Your task to perform on an android device: Go to accessibility settings Image 0: 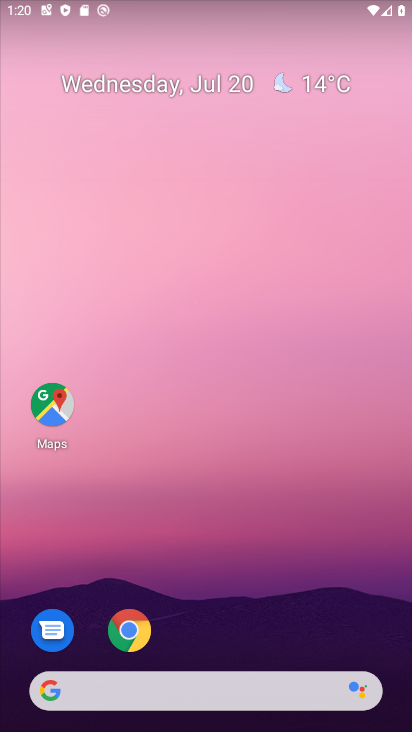
Step 0: press home button
Your task to perform on an android device: Go to accessibility settings Image 1: 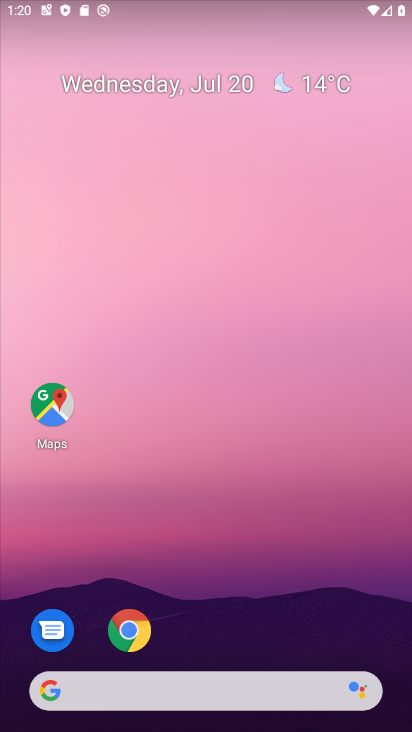
Step 1: drag from (224, 612) to (195, 189)
Your task to perform on an android device: Go to accessibility settings Image 2: 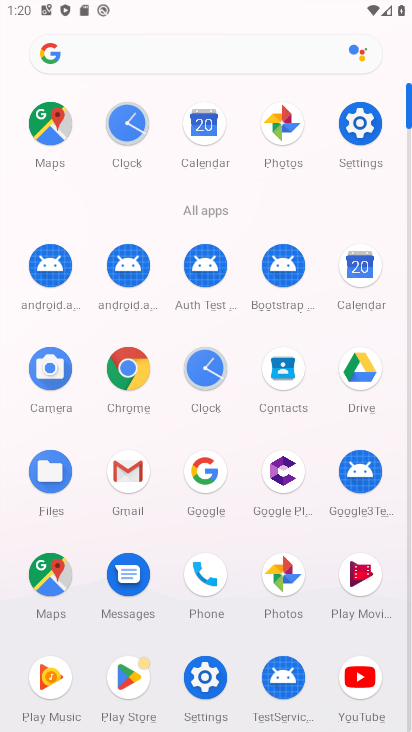
Step 2: click (352, 120)
Your task to perform on an android device: Go to accessibility settings Image 3: 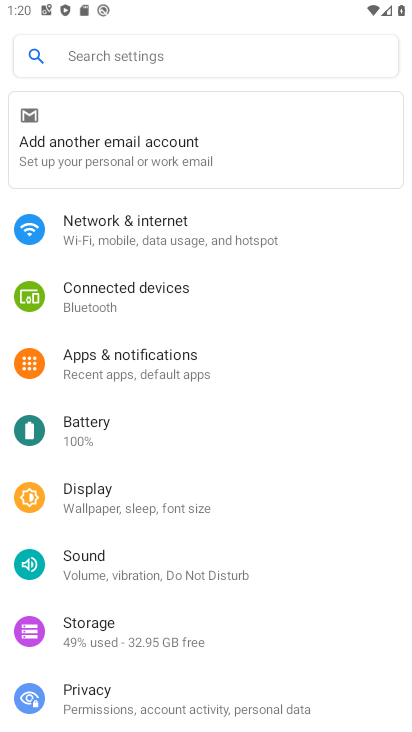
Step 3: click (92, 47)
Your task to perform on an android device: Go to accessibility settings Image 4: 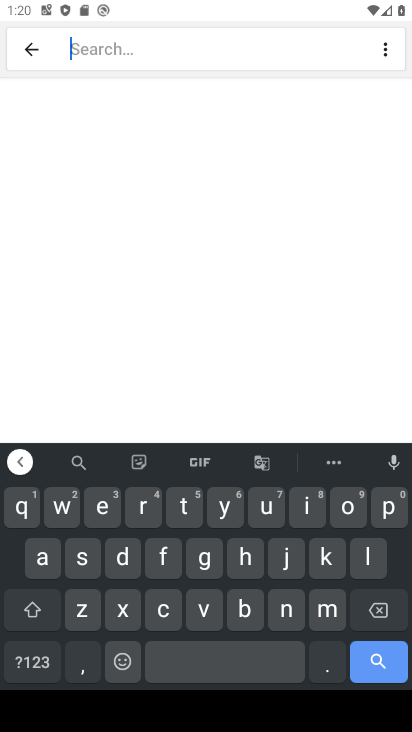
Step 4: click (44, 557)
Your task to perform on an android device: Go to accessibility settings Image 5: 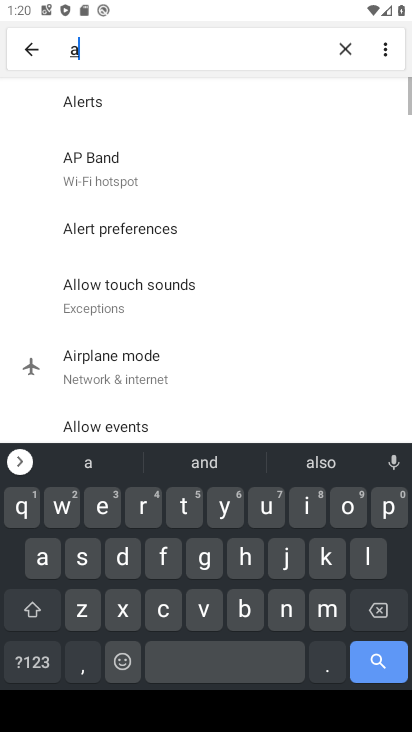
Step 5: click (164, 626)
Your task to perform on an android device: Go to accessibility settings Image 6: 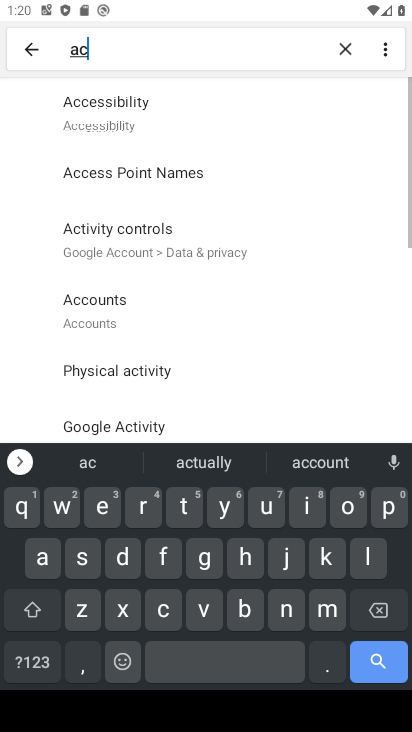
Step 6: click (110, 121)
Your task to perform on an android device: Go to accessibility settings Image 7: 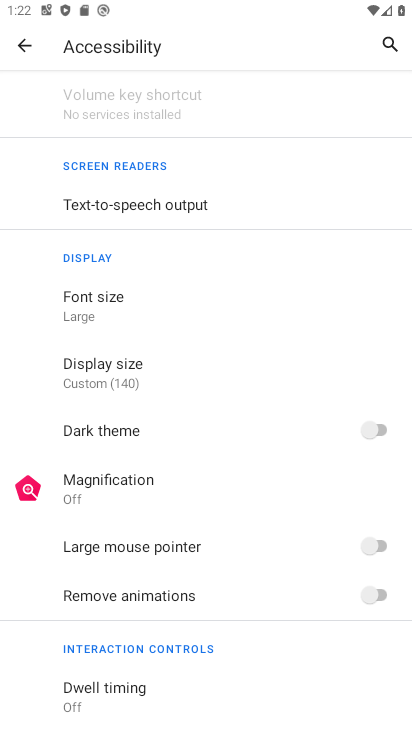
Step 7: task complete